Your task to perform on an android device: find photos in the google photos app Image 0: 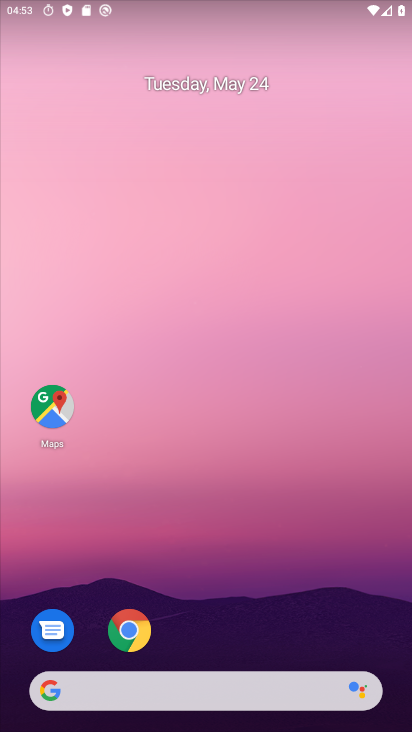
Step 0: drag from (176, 638) to (252, 133)
Your task to perform on an android device: find photos in the google photos app Image 1: 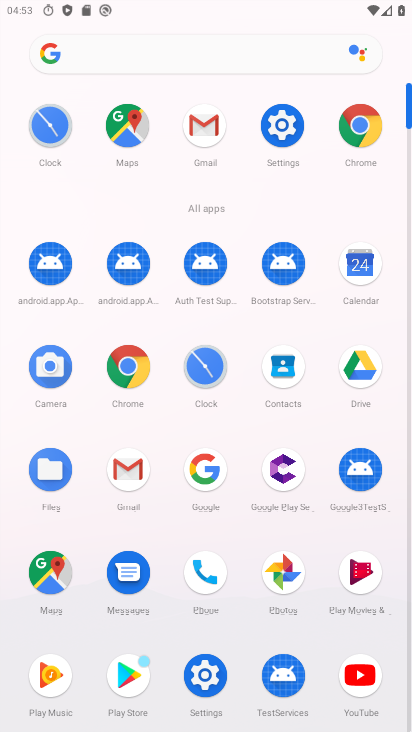
Step 1: click (291, 569)
Your task to perform on an android device: find photos in the google photos app Image 2: 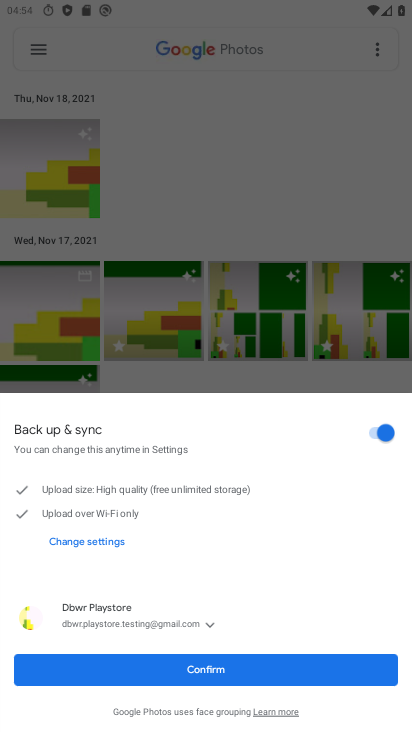
Step 2: task complete